Your task to perform on an android device: Go to battery settings Image 0: 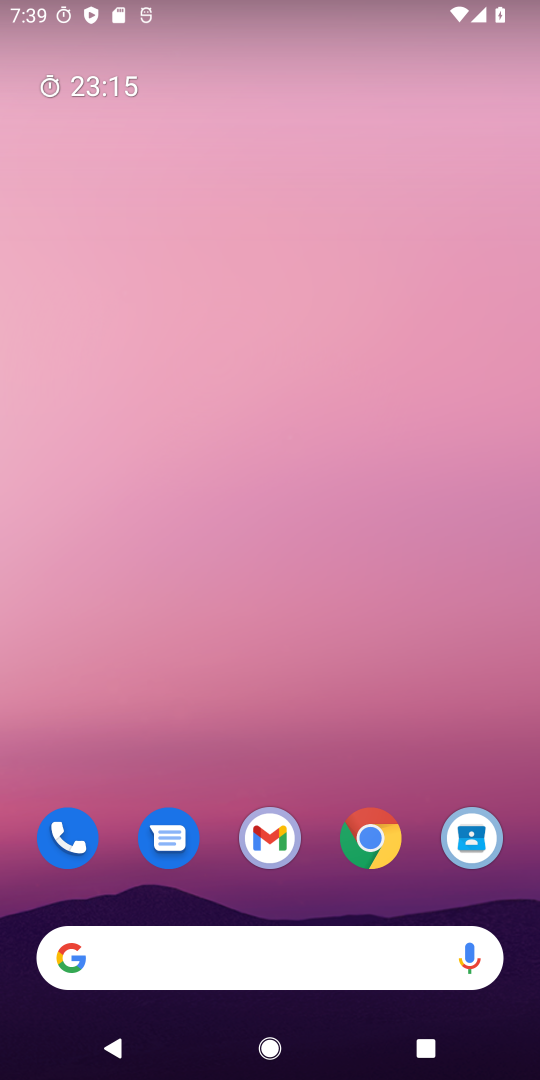
Step 0: drag from (317, 882) to (315, 234)
Your task to perform on an android device: Go to battery settings Image 1: 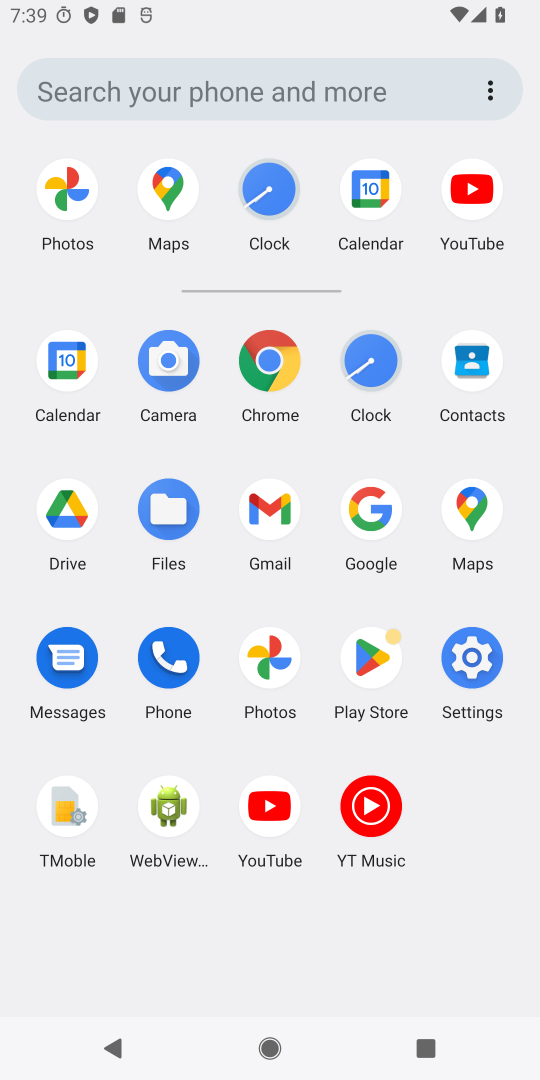
Step 1: click (472, 656)
Your task to perform on an android device: Go to battery settings Image 2: 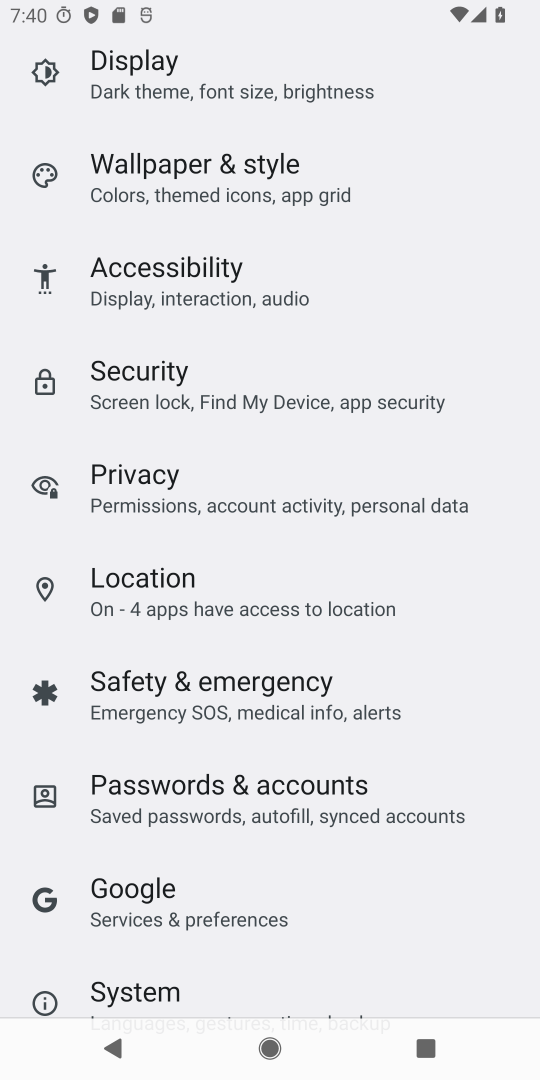
Step 2: drag from (252, 295) to (144, 841)
Your task to perform on an android device: Go to battery settings Image 3: 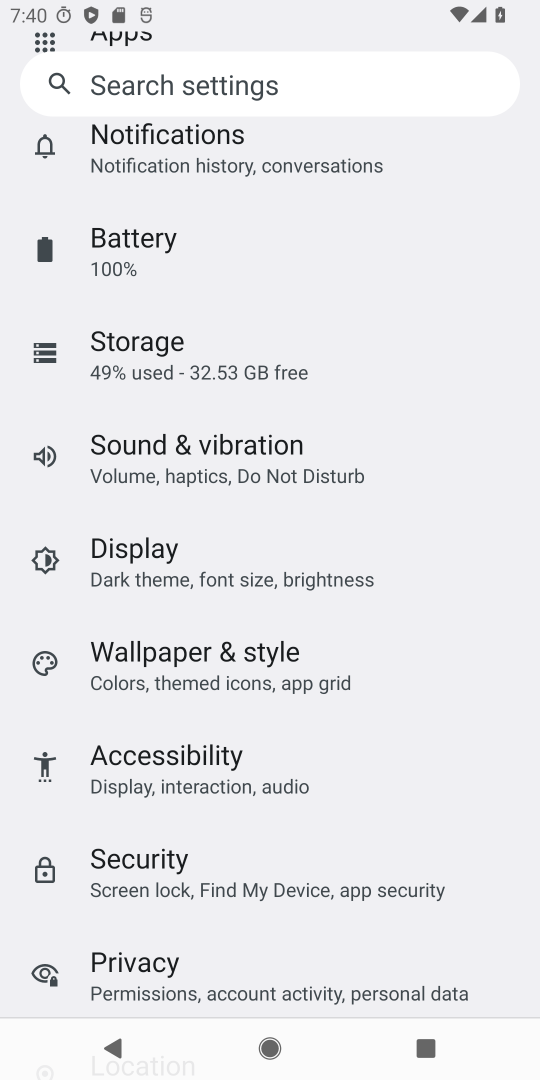
Step 3: click (143, 242)
Your task to perform on an android device: Go to battery settings Image 4: 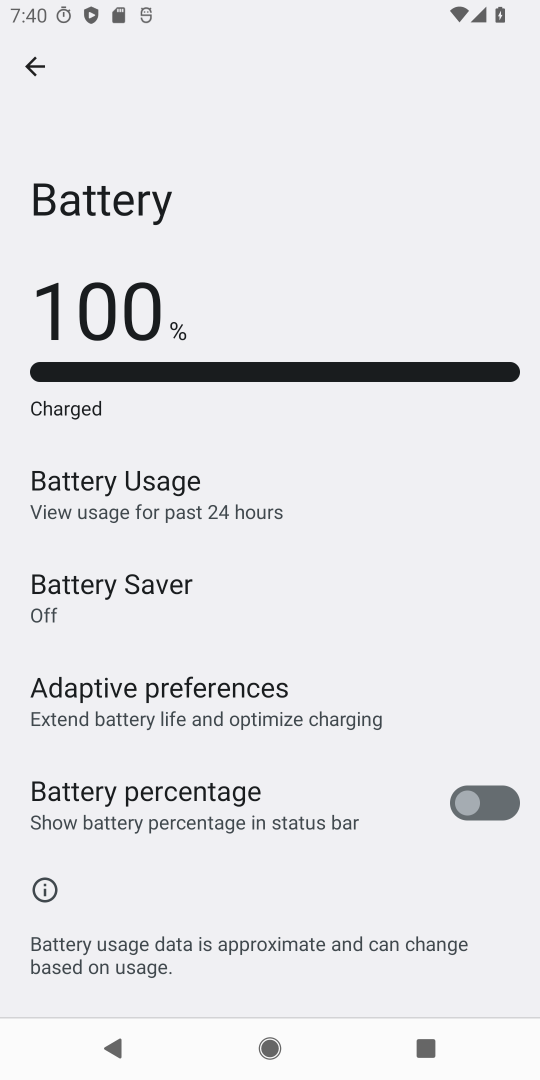
Step 4: task complete